Your task to perform on an android device: Go to location settings Image 0: 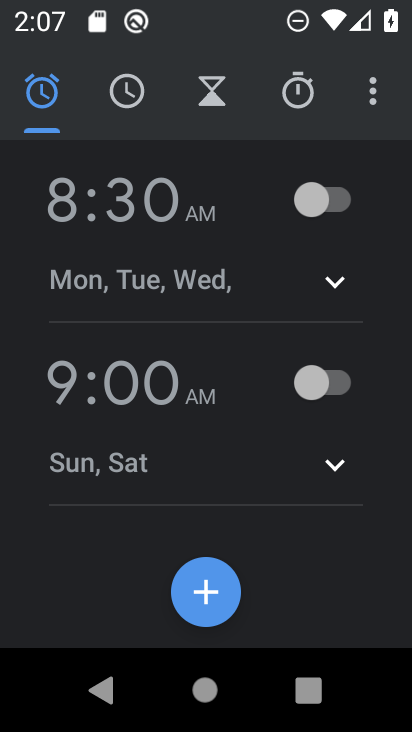
Step 0: press home button
Your task to perform on an android device: Go to location settings Image 1: 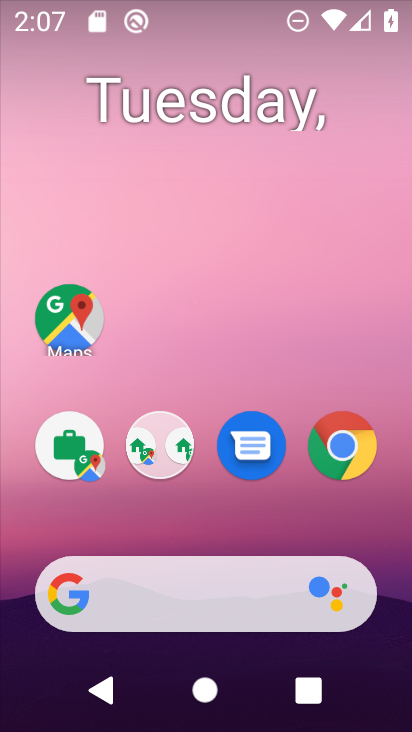
Step 1: click (69, 350)
Your task to perform on an android device: Go to location settings Image 2: 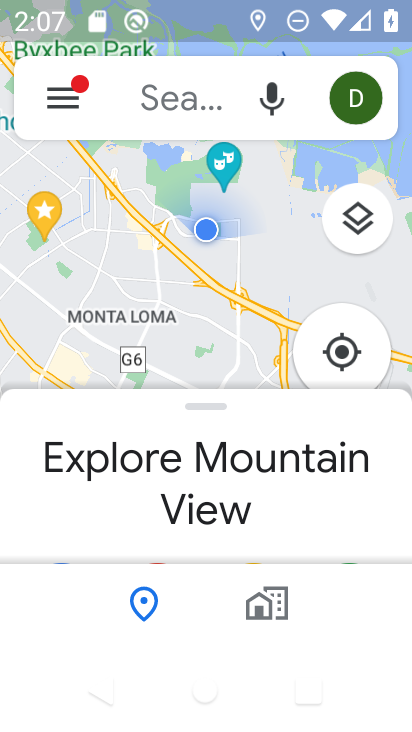
Step 2: click (68, 106)
Your task to perform on an android device: Go to location settings Image 3: 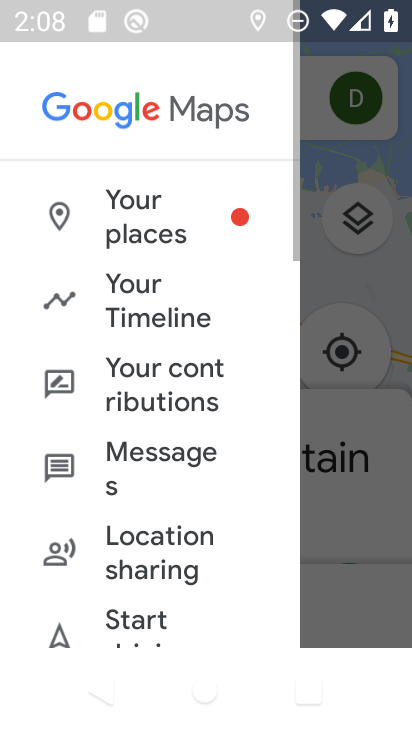
Step 3: drag from (135, 549) to (129, 189)
Your task to perform on an android device: Go to location settings Image 4: 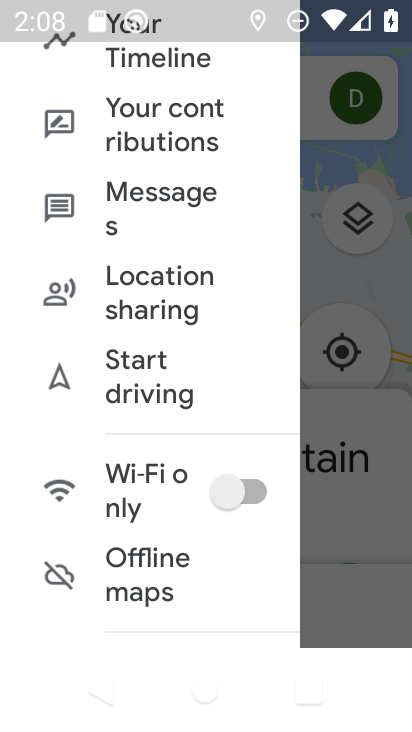
Step 4: drag from (155, 530) to (148, 165)
Your task to perform on an android device: Go to location settings Image 5: 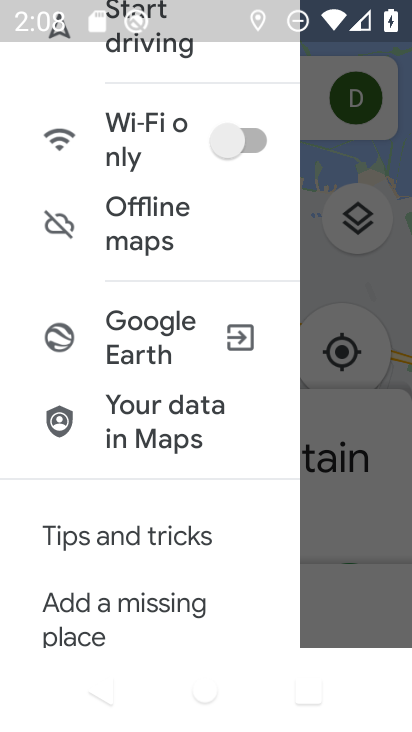
Step 5: drag from (158, 578) to (134, 190)
Your task to perform on an android device: Go to location settings Image 6: 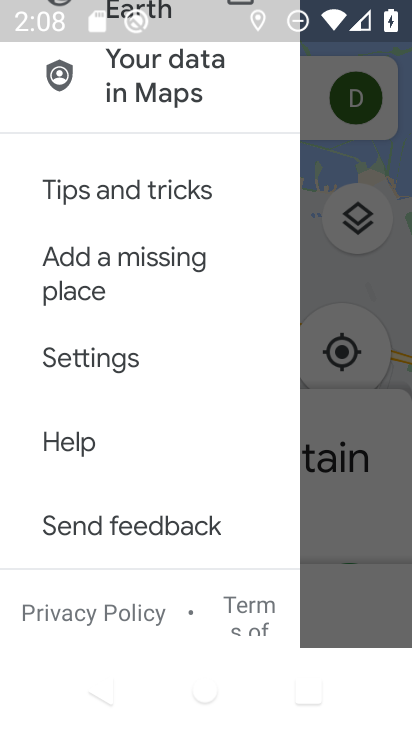
Step 6: click (124, 368)
Your task to perform on an android device: Go to location settings Image 7: 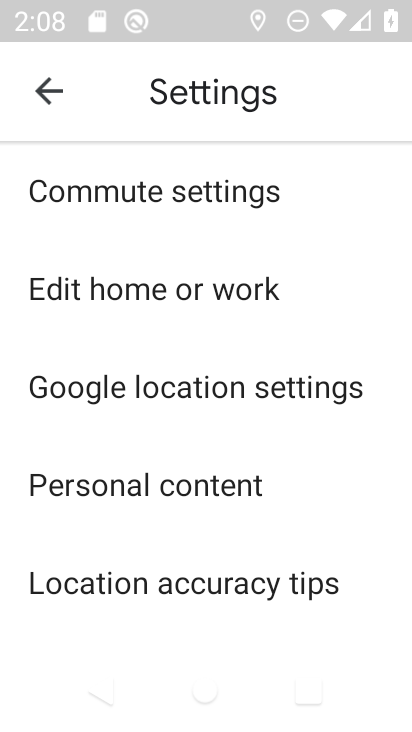
Step 7: task complete